Your task to perform on an android device: Show me some nice wallpapers for my desktop Image 0: 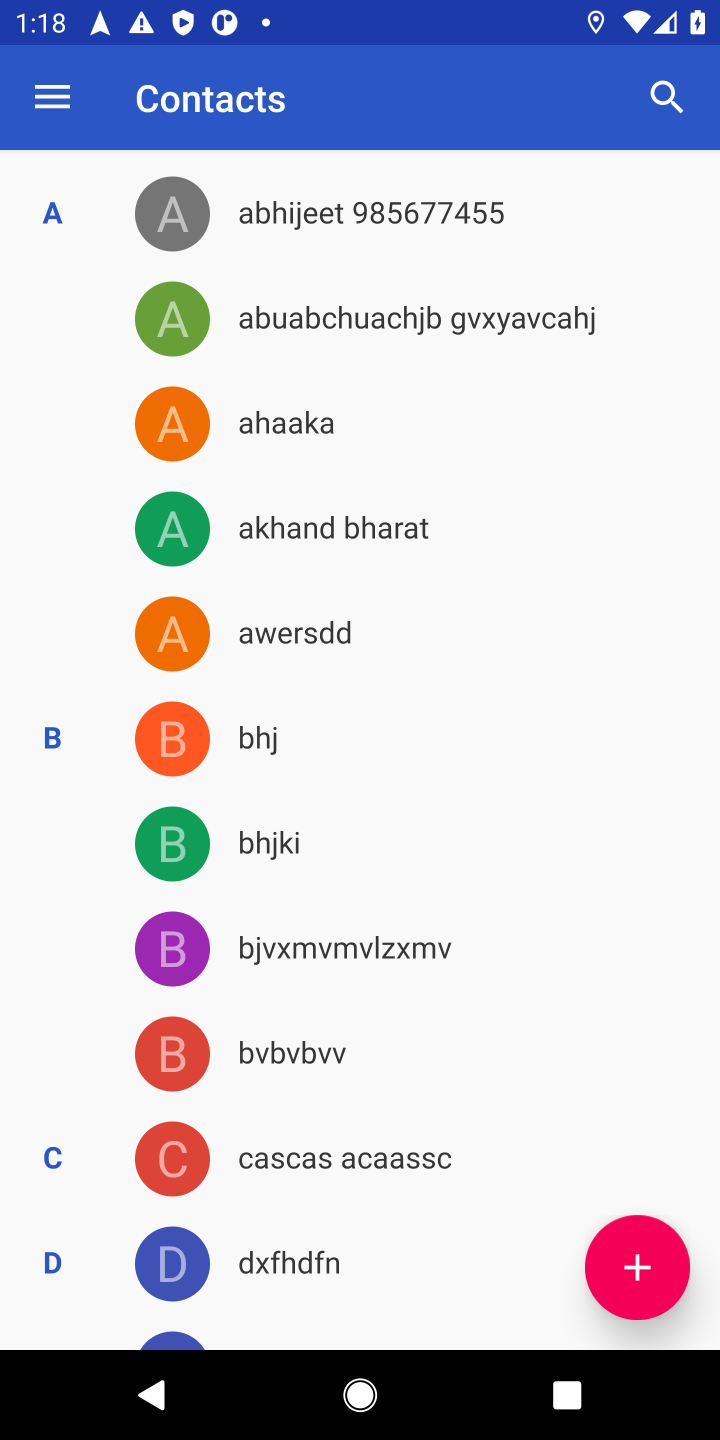
Step 0: press home button
Your task to perform on an android device: Show me some nice wallpapers for my desktop Image 1: 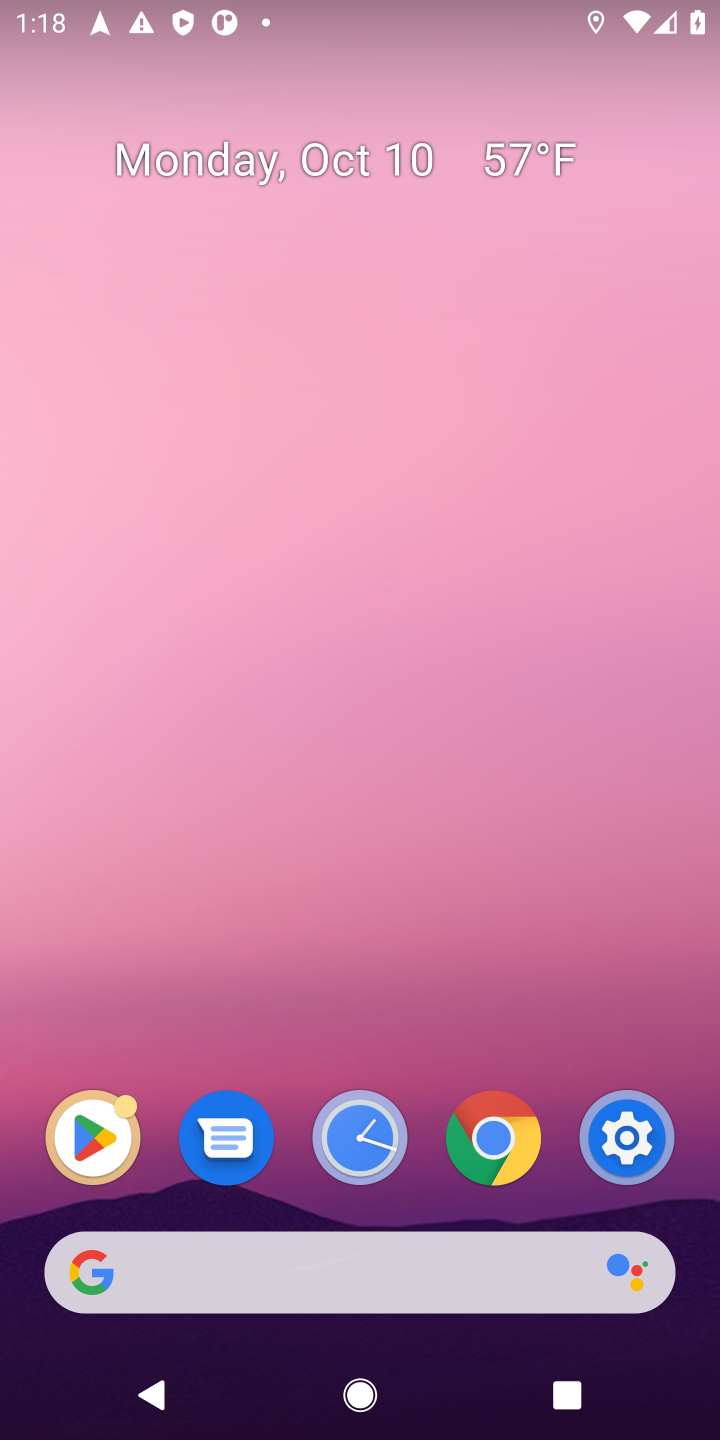
Step 1: click (202, 1263)
Your task to perform on an android device: Show me some nice wallpapers for my desktop Image 2: 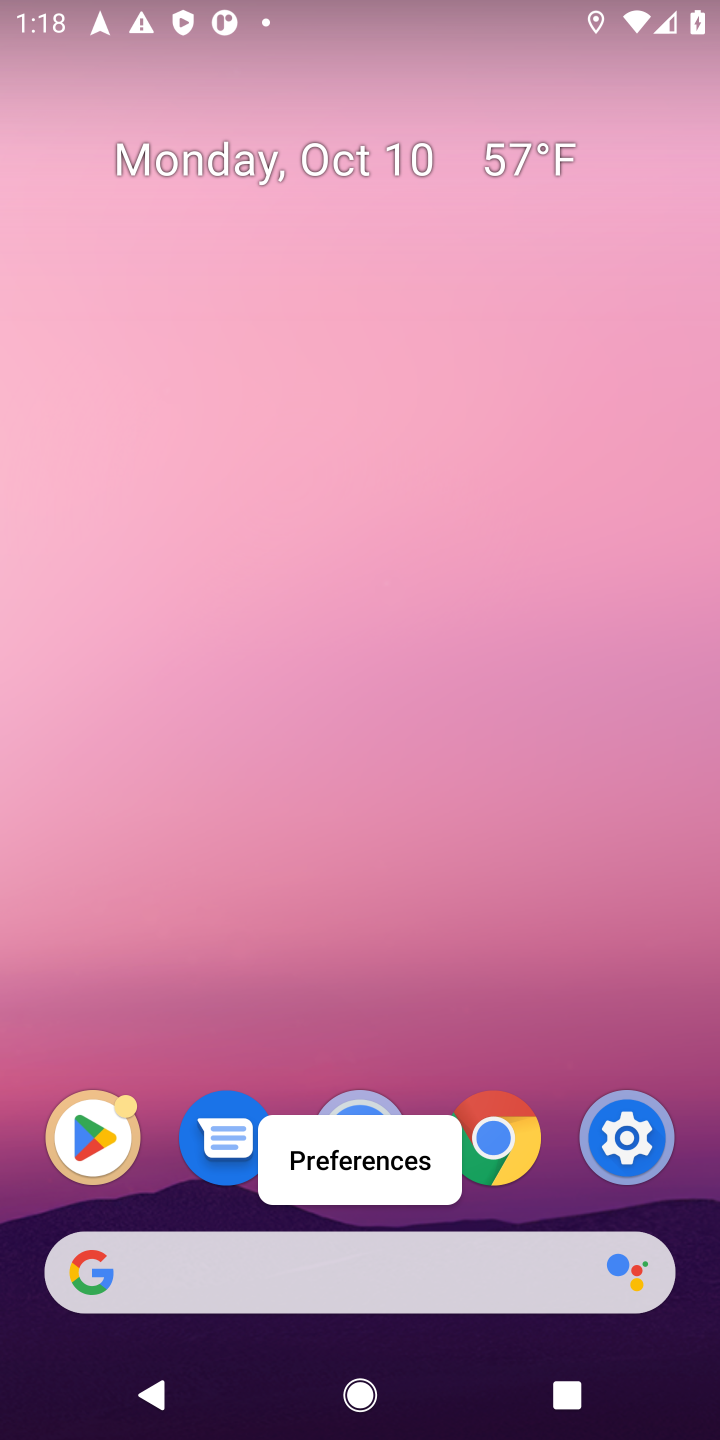
Step 2: click (246, 1271)
Your task to perform on an android device: Show me some nice wallpapers for my desktop Image 3: 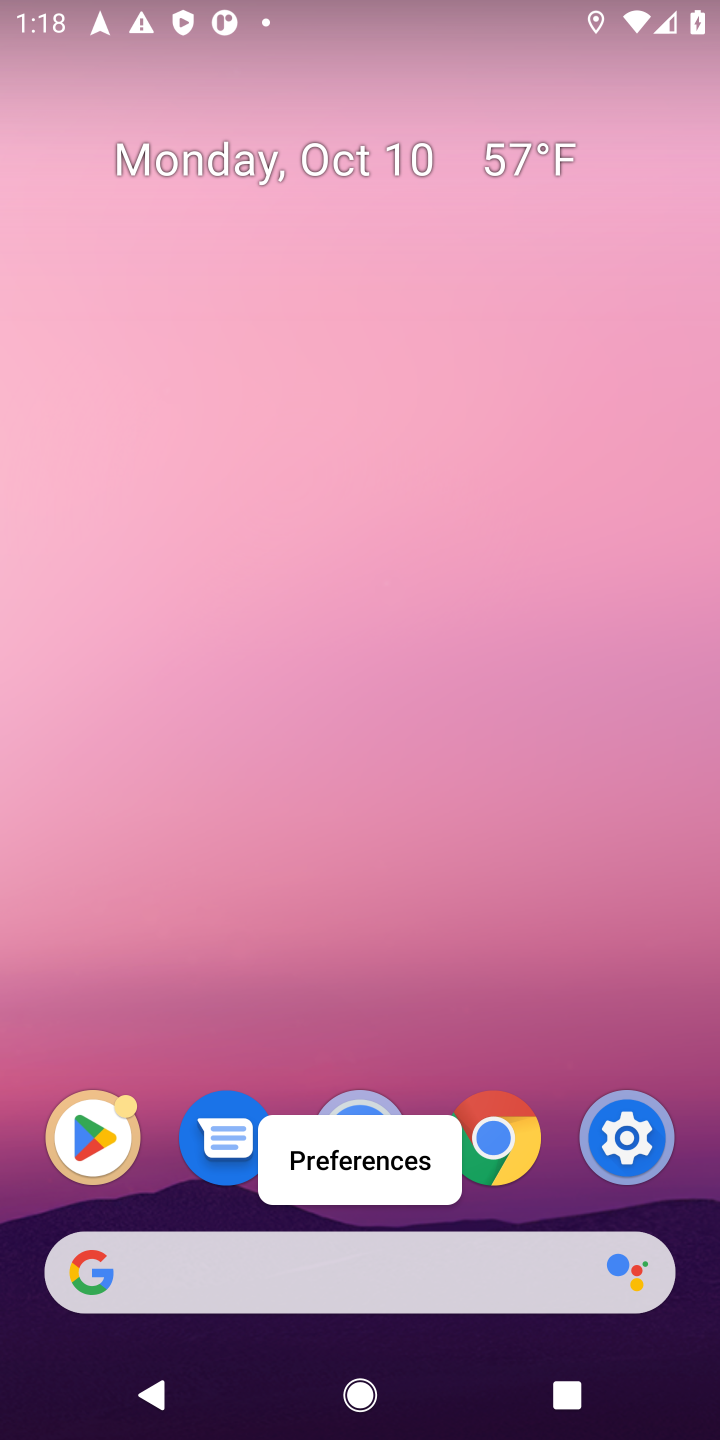
Step 3: click (465, 1291)
Your task to perform on an android device: Show me some nice wallpapers for my desktop Image 4: 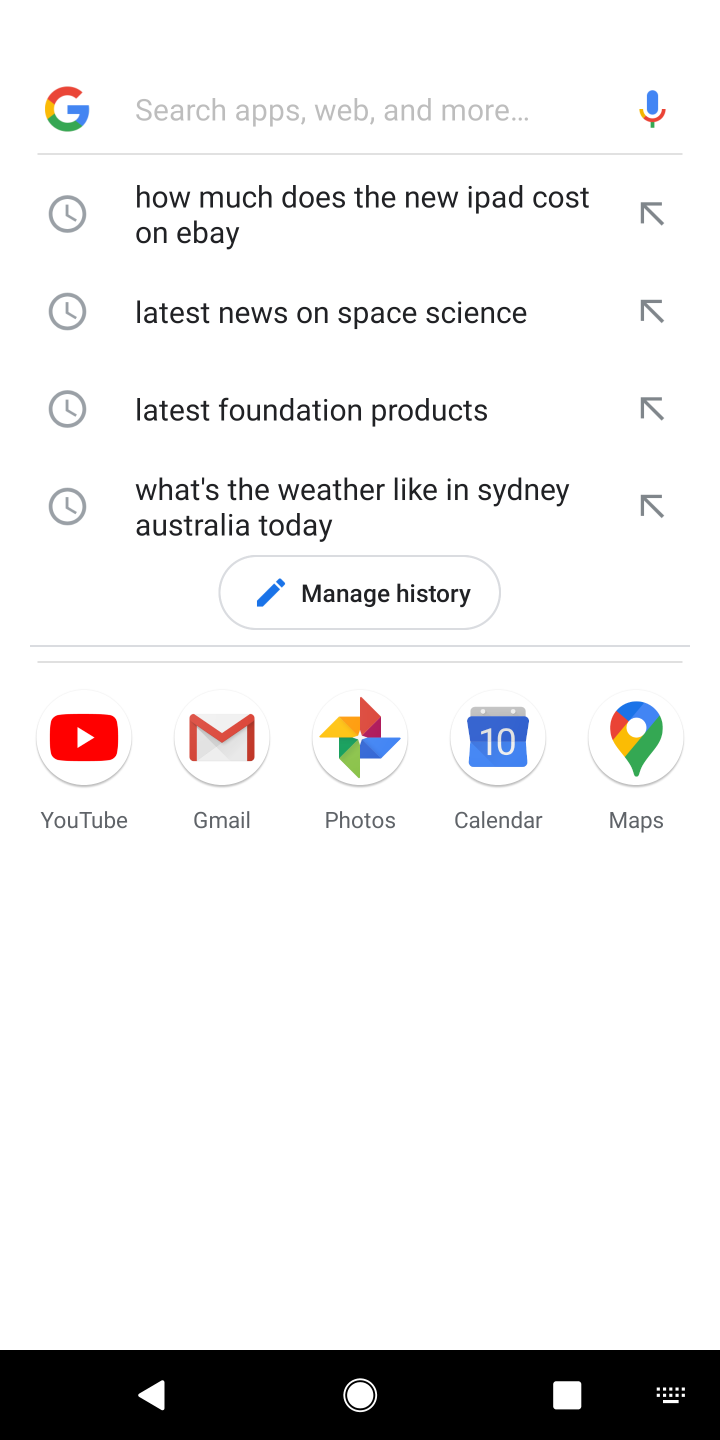
Step 4: type "Show me some nice wallpapers for my desktop"
Your task to perform on an android device: Show me some nice wallpapers for my desktop Image 5: 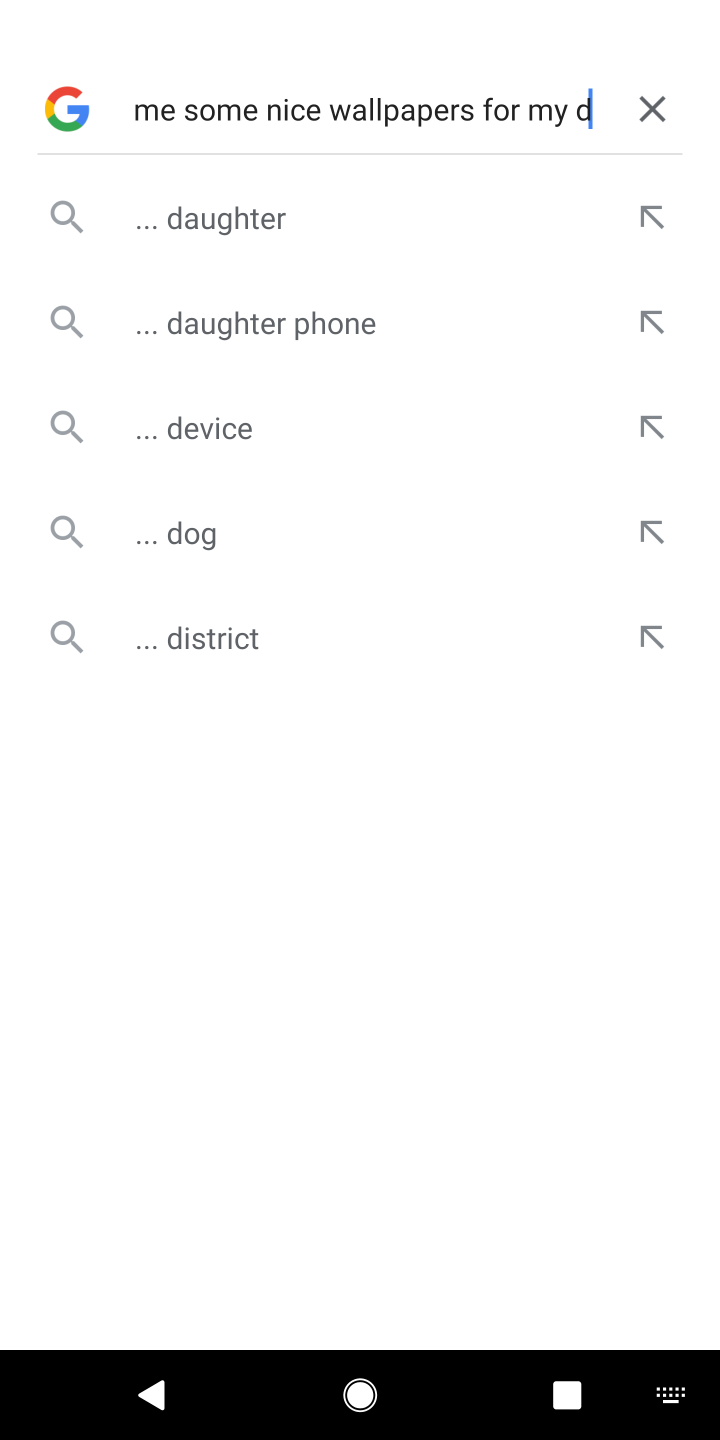
Step 5: type "esktop"
Your task to perform on an android device: Show me some nice wallpapers for my desktop Image 6: 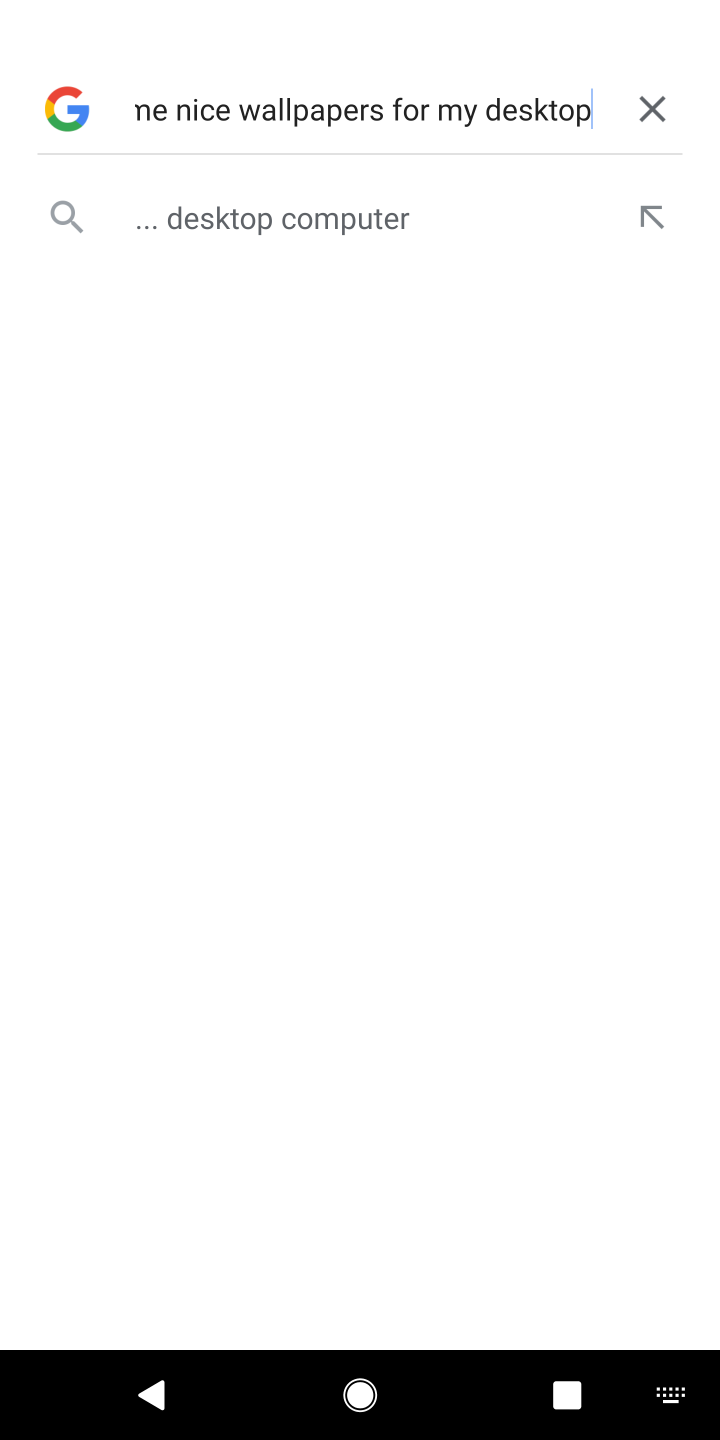
Step 6: click (380, 207)
Your task to perform on an android device: Show me some nice wallpapers for my desktop Image 7: 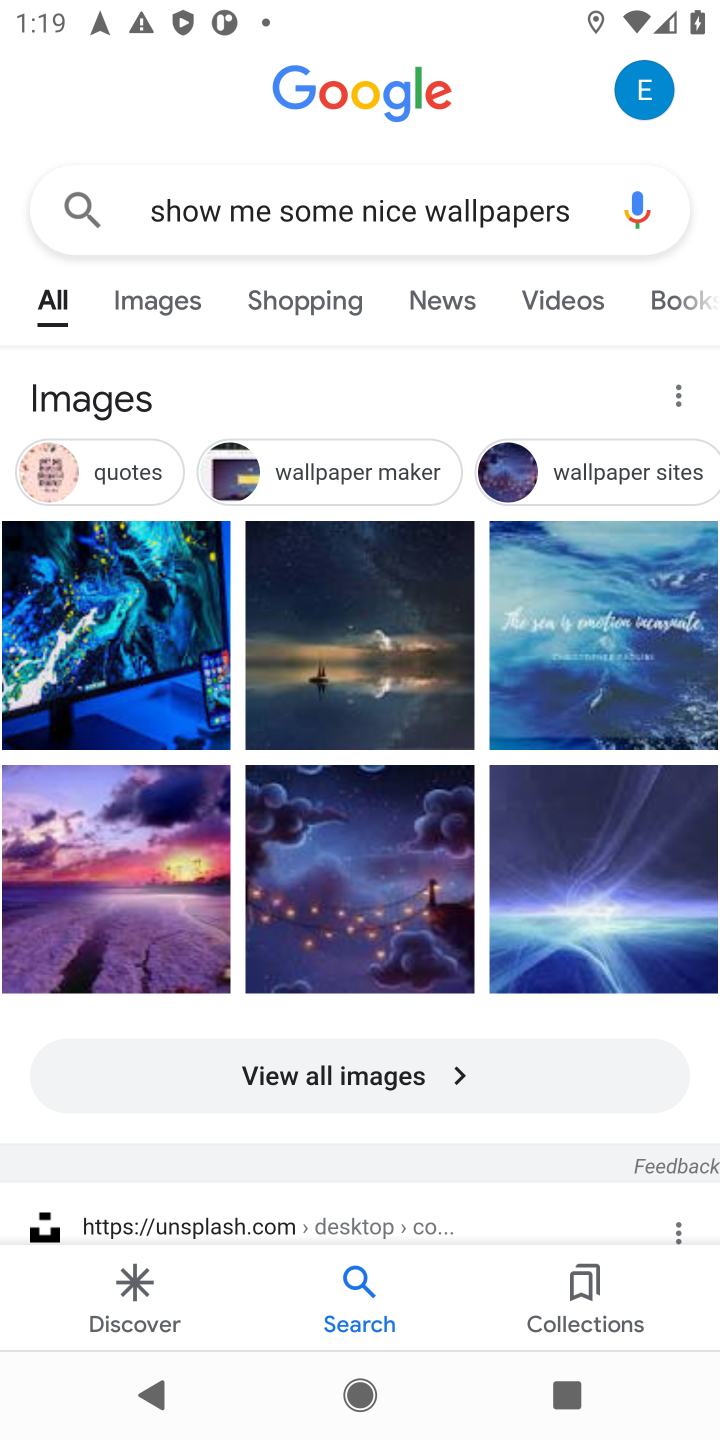
Step 7: task complete